Your task to perform on an android device: turn on priority inbox in the gmail app Image 0: 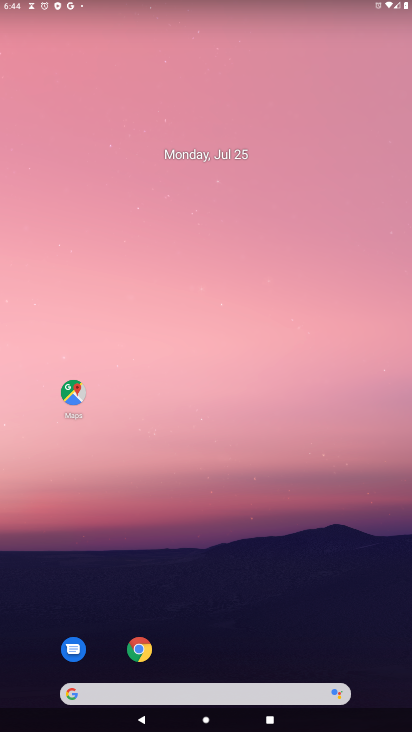
Step 0: drag from (338, 696) to (357, 195)
Your task to perform on an android device: turn on priority inbox in the gmail app Image 1: 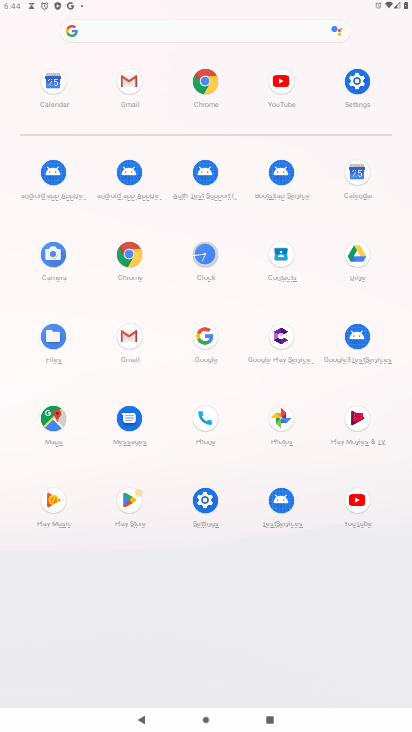
Step 1: click (130, 333)
Your task to perform on an android device: turn on priority inbox in the gmail app Image 2: 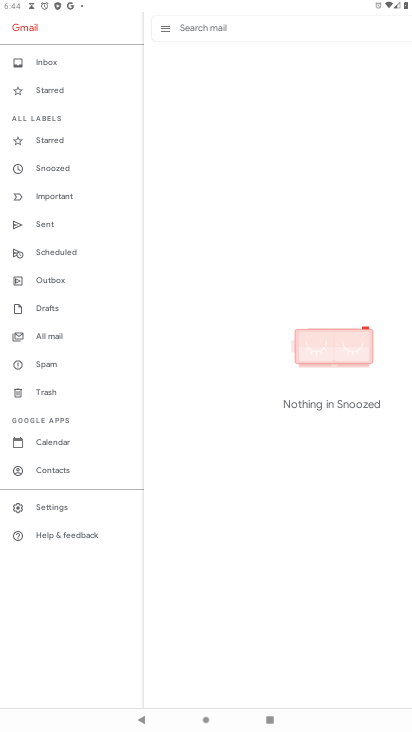
Step 2: click (62, 499)
Your task to perform on an android device: turn on priority inbox in the gmail app Image 3: 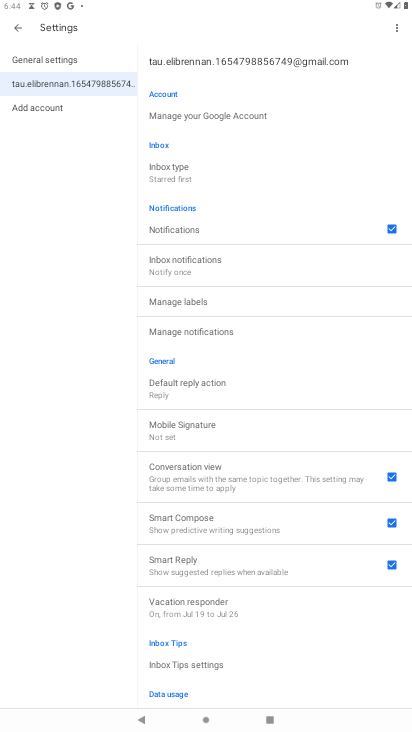
Step 3: click (191, 169)
Your task to perform on an android device: turn on priority inbox in the gmail app Image 4: 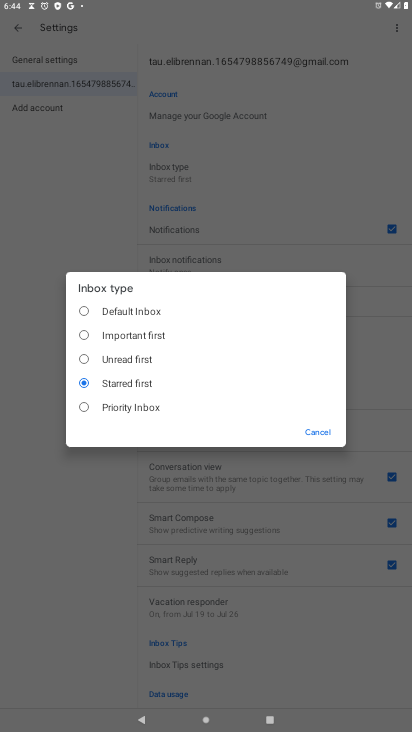
Step 4: click (80, 407)
Your task to perform on an android device: turn on priority inbox in the gmail app Image 5: 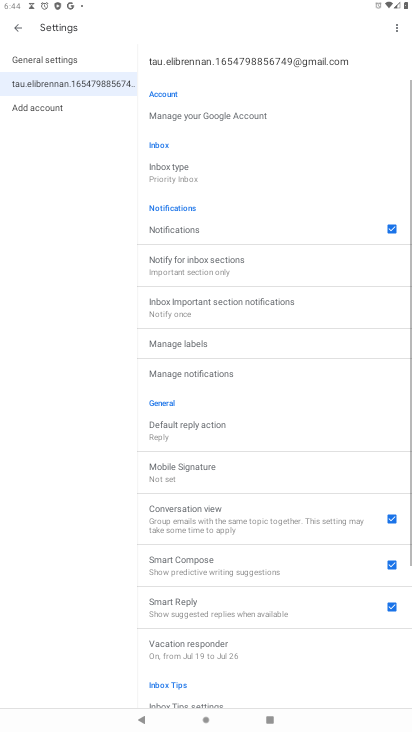
Step 5: task complete